Your task to perform on an android device: turn off javascript in the chrome app Image 0: 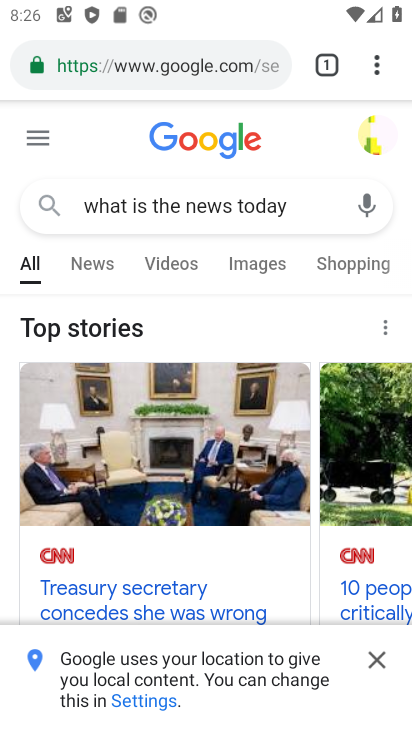
Step 0: click (392, 55)
Your task to perform on an android device: turn off javascript in the chrome app Image 1: 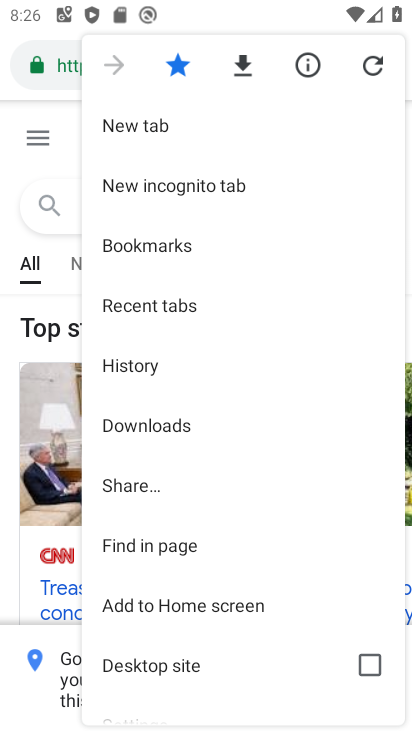
Step 1: drag from (150, 680) to (238, 58)
Your task to perform on an android device: turn off javascript in the chrome app Image 2: 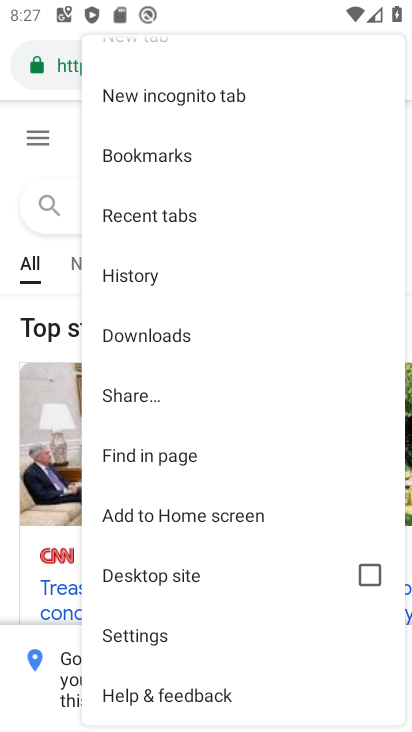
Step 2: click (153, 623)
Your task to perform on an android device: turn off javascript in the chrome app Image 3: 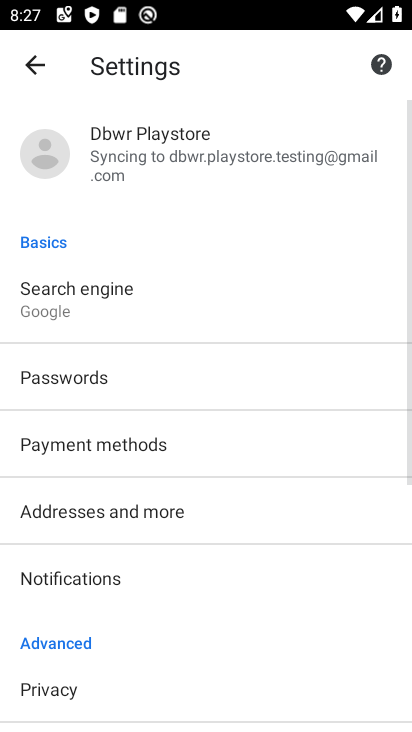
Step 3: drag from (153, 623) to (242, 123)
Your task to perform on an android device: turn off javascript in the chrome app Image 4: 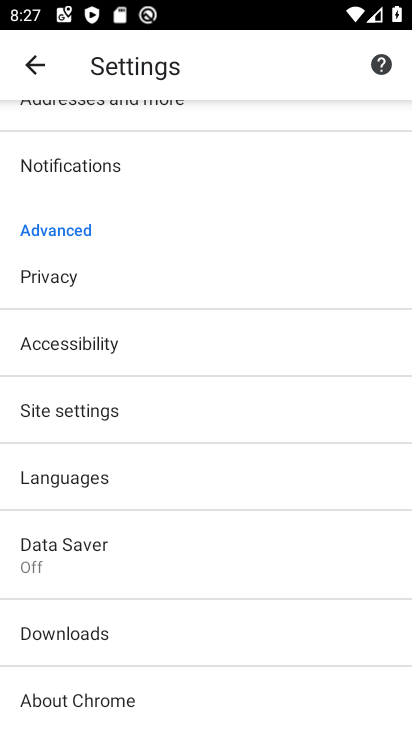
Step 4: click (133, 413)
Your task to perform on an android device: turn off javascript in the chrome app Image 5: 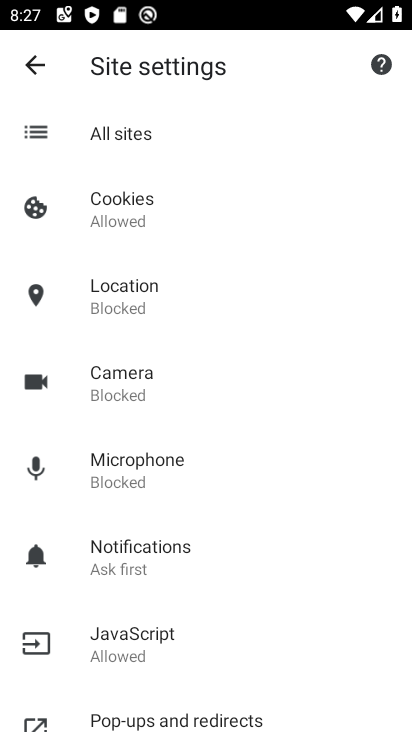
Step 5: click (178, 651)
Your task to perform on an android device: turn off javascript in the chrome app Image 6: 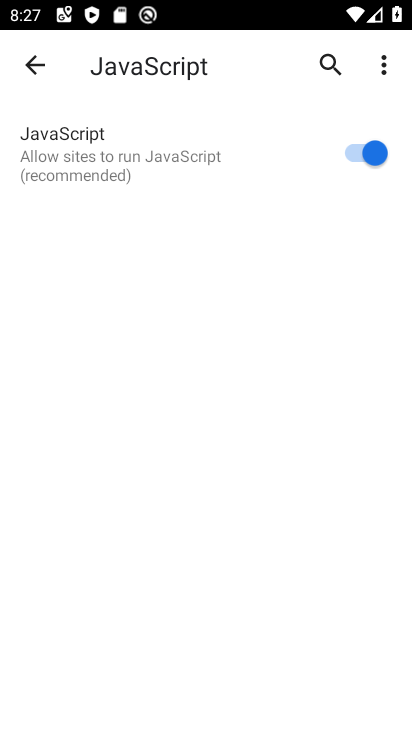
Step 6: click (365, 153)
Your task to perform on an android device: turn off javascript in the chrome app Image 7: 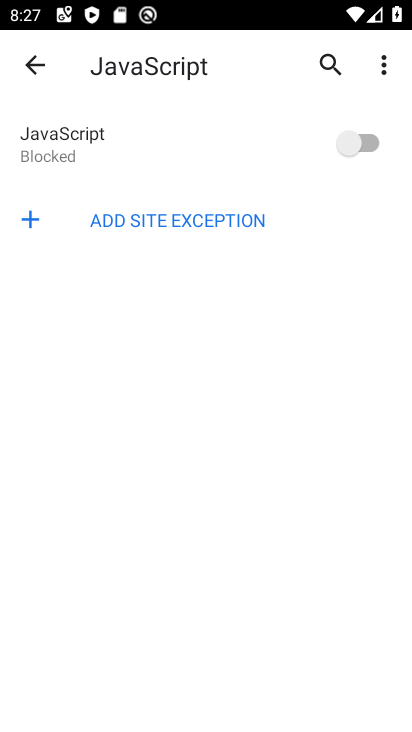
Step 7: task complete